Your task to perform on an android device: turn on priority inbox in the gmail app Image 0: 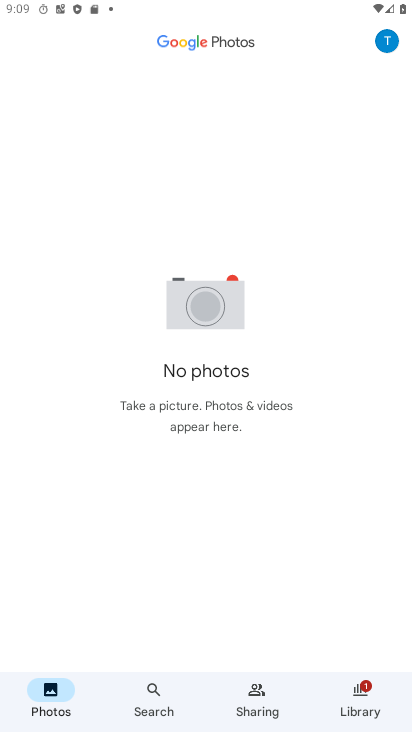
Step 0: press home button
Your task to perform on an android device: turn on priority inbox in the gmail app Image 1: 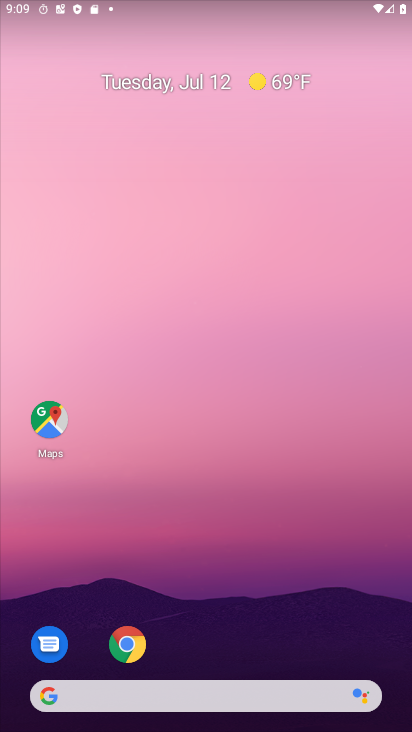
Step 1: drag from (209, 663) to (207, 29)
Your task to perform on an android device: turn on priority inbox in the gmail app Image 2: 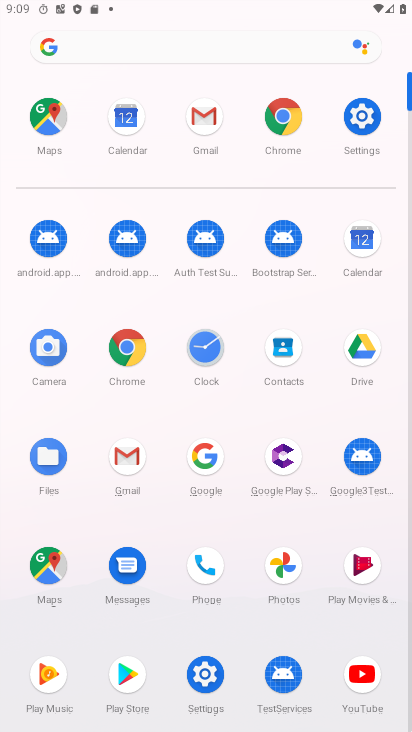
Step 2: click (206, 116)
Your task to perform on an android device: turn on priority inbox in the gmail app Image 3: 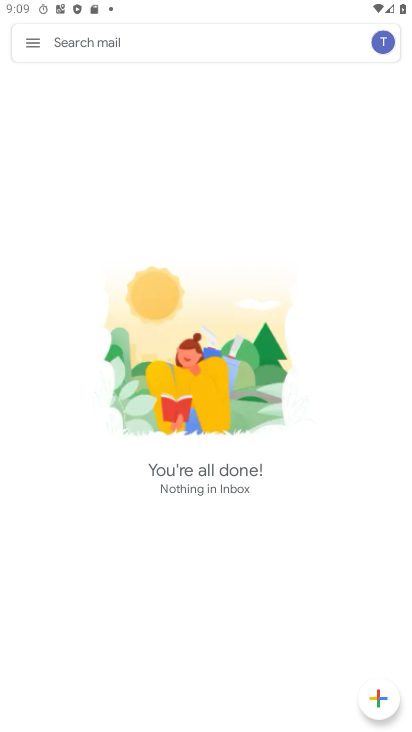
Step 3: click (34, 33)
Your task to perform on an android device: turn on priority inbox in the gmail app Image 4: 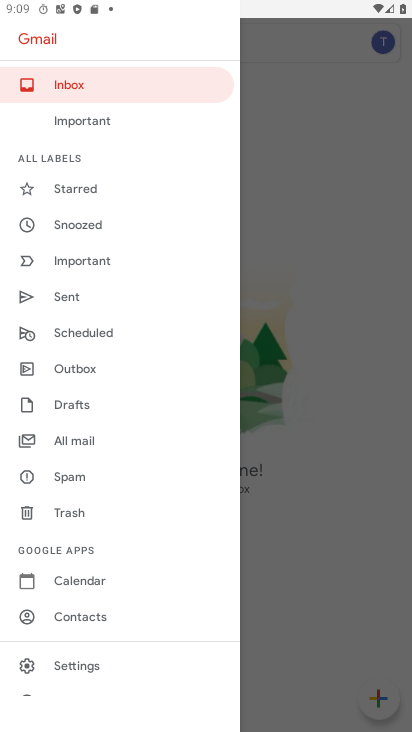
Step 4: click (100, 660)
Your task to perform on an android device: turn on priority inbox in the gmail app Image 5: 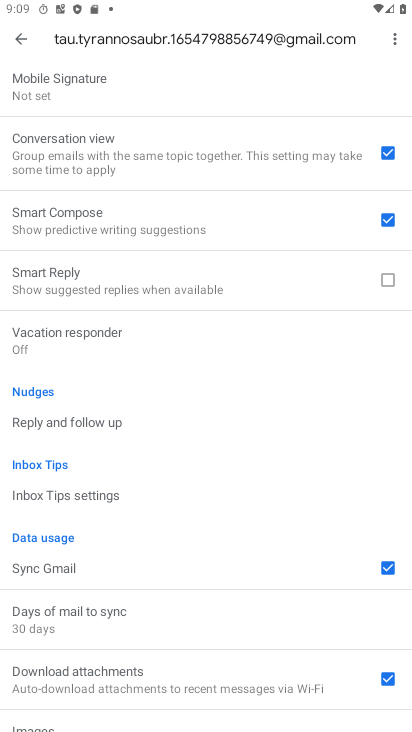
Step 5: drag from (107, 136) to (187, 672)
Your task to perform on an android device: turn on priority inbox in the gmail app Image 6: 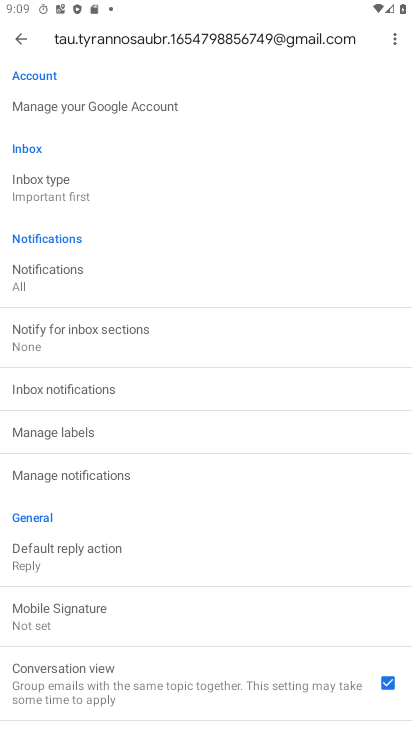
Step 6: drag from (82, 173) to (170, 491)
Your task to perform on an android device: turn on priority inbox in the gmail app Image 7: 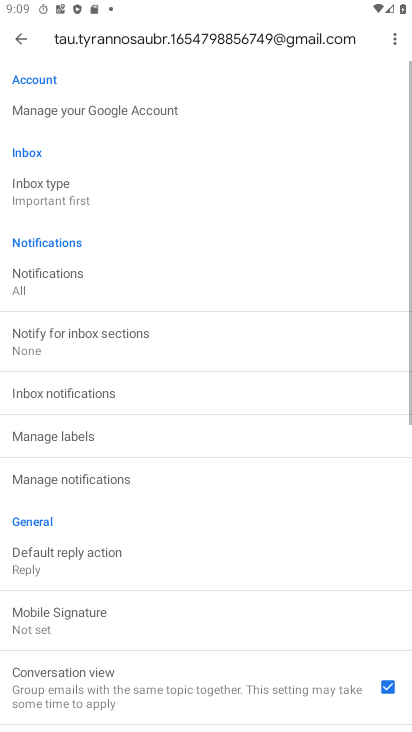
Step 7: click (101, 178)
Your task to perform on an android device: turn on priority inbox in the gmail app Image 8: 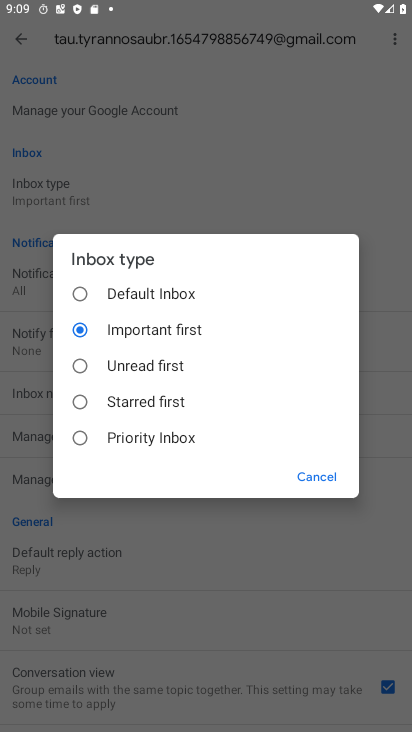
Step 8: click (81, 451)
Your task to perform on an android device: turn on priority inbox in the gmail app Image 9: 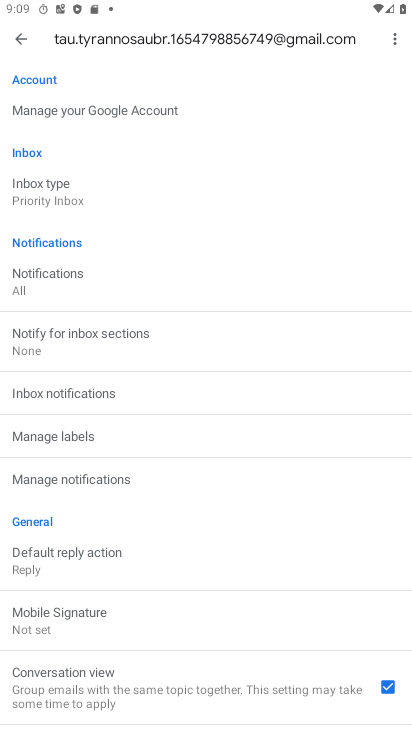
Step 9: task complete